Your task to perform on an android device: Go to Reddit.com Image 0: 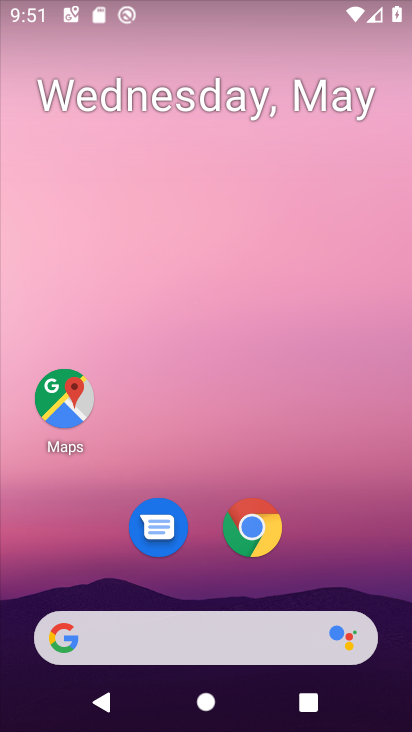
Step 0: drag from (195, 573) to (227, 136)
Your task to perform on an android device: Go to Reddit.com Image 1: 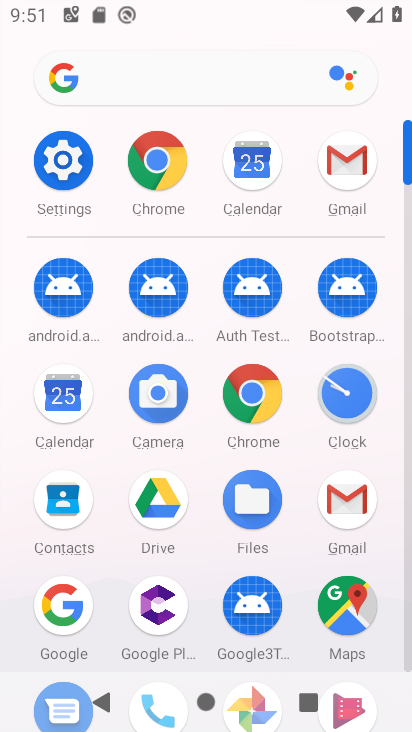
Step 1: click (63, 610)
Your task to perform on an android device: Go to Reddit.com Image 2: 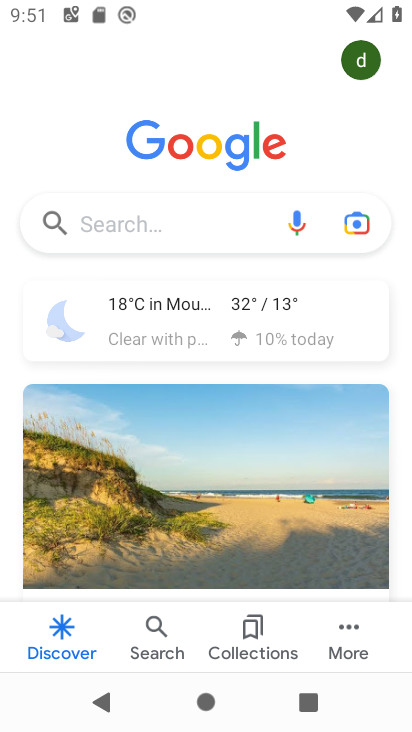
Step 2: click (161, 231)
Your task to perform on an android device: Go to Reddit.com Image 3: 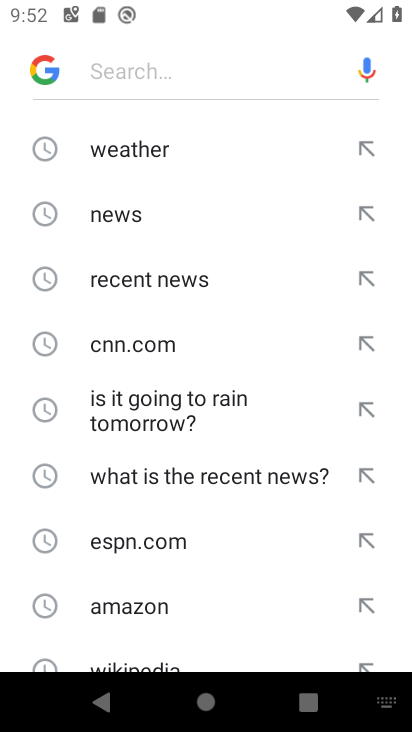
Step 3: drag from (200, 597) to (243, 105)
Your task to perform on an android device: Go to Reddit.com Image 4: 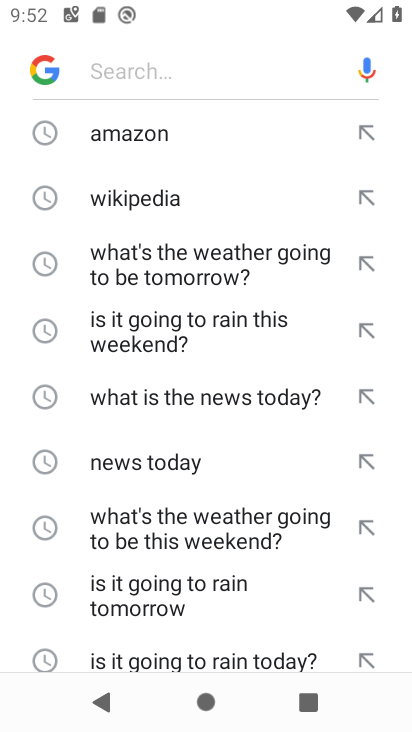
Step 4: drag from (217, 624) to (260, 235)
Your task to perform on an android device: Go to Reddit.com Image 5: 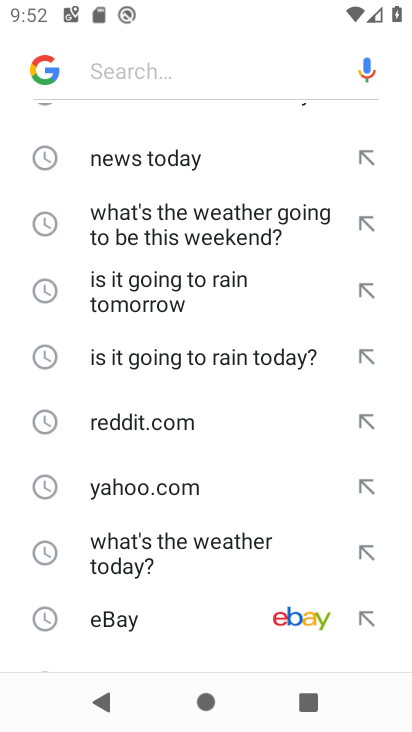
Step 5: click (155, 421)
Your task to perform on an android device: Go to Reddit.com Image 6: 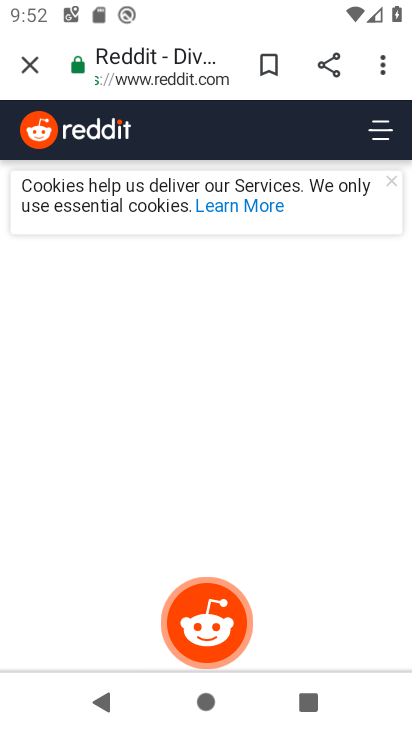
Step 6: task complete